Your task to perform on an android device: Go to accessibility settings Image 0: 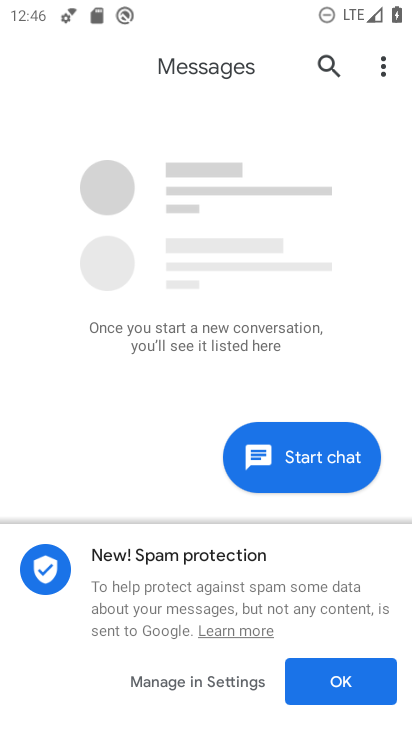
Step 0: press home button
Your task to perform on an android device: Go to accessibility settings Image 1: 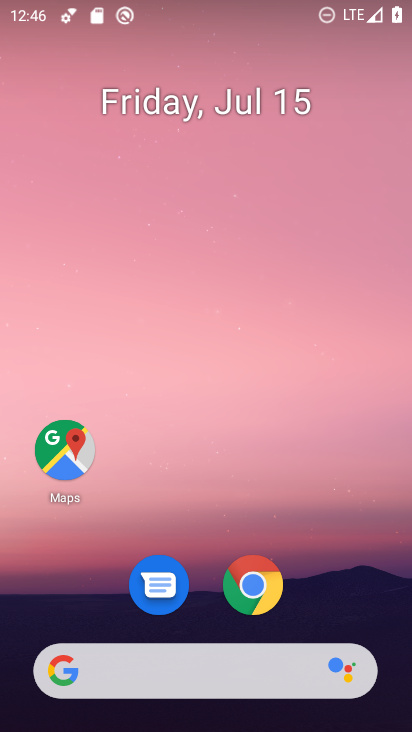
Step 1: drag from (336, 590) to (355, 62)
Your task to perform on an android device: Go to accessibility settings Image 2: 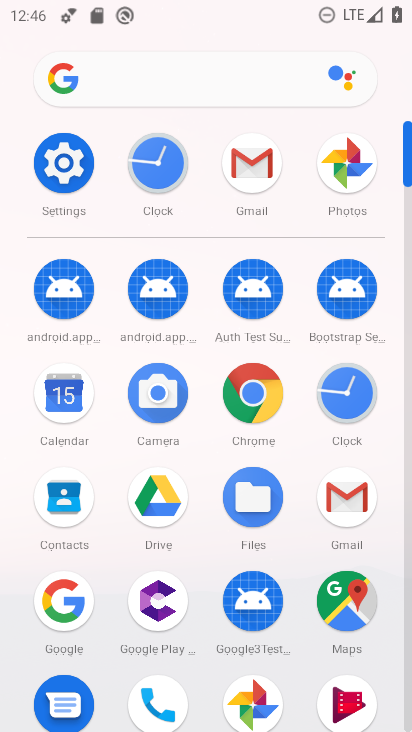
Step 2: click (66, 148)
Your task to perform on an android device: Go to accessibility settings Image 3: 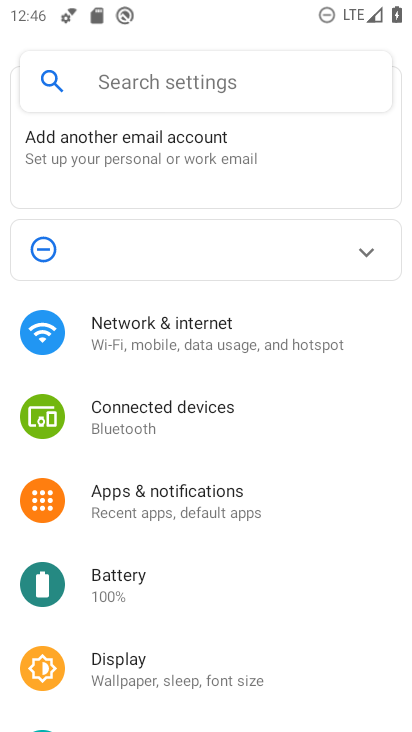
Step 3: drag from (242, 552) to (302, 0)
Your task to perform on an android device: Go to accessibility settings Image 4: 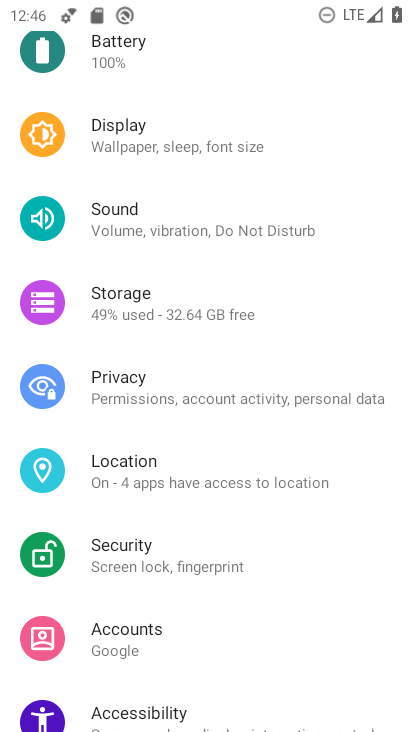
Step 4: drag from (245, 580) to (257, 238)
Your task to perform on an android device: Go to accessibility settings Image 5: 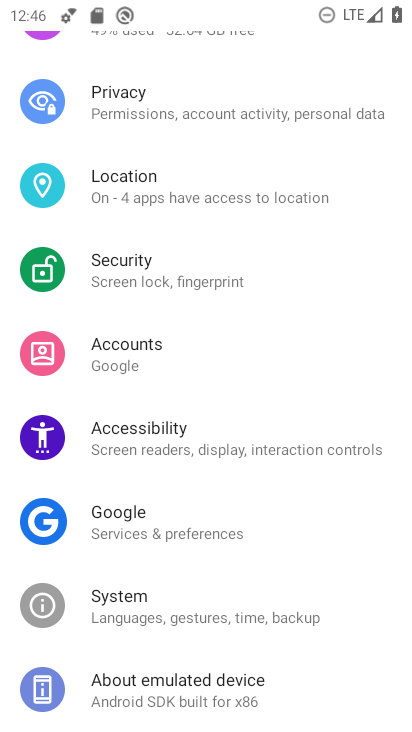
Step 5: click (232, 431)
Your task to perform on an android device: Go to accessibility settings Image 6: 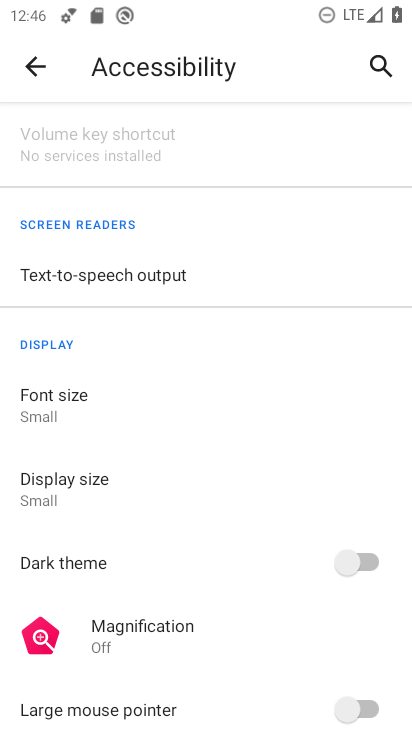
Step 6: task complete